Your task to perform on an android device: find snoozed emails in the gmail app Image 0: 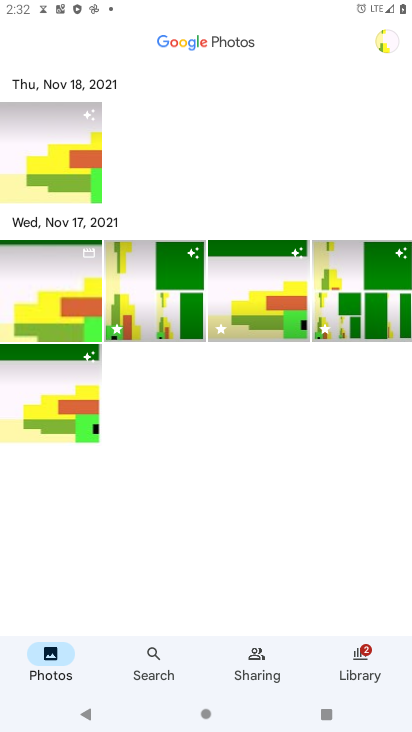
Step 0: press home button
Your task to perform on an android device: find snoozed emails in the gmail app Image 1: 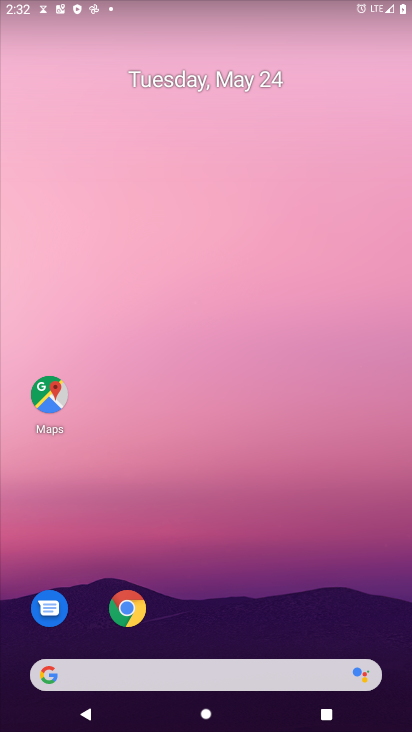
Step 1: drag from (252, 682) to (293, 120)
Your task to perform on an android device: find snoozed emails in the gmail app Image 2: 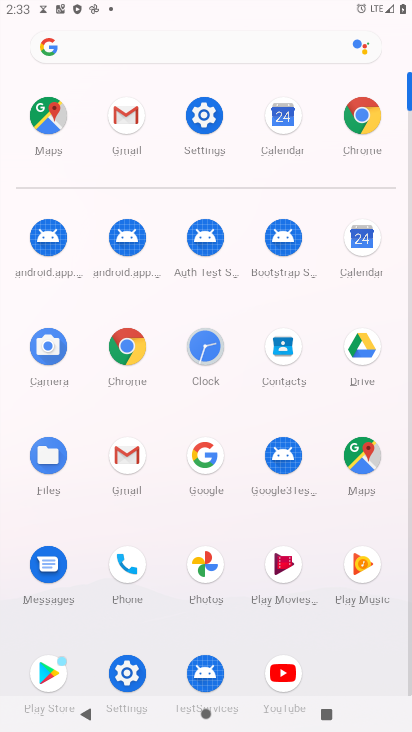
Step 2: click (128, 127)
Your task to perform on an android device: find snoozed emails in the gmail app Image 3: 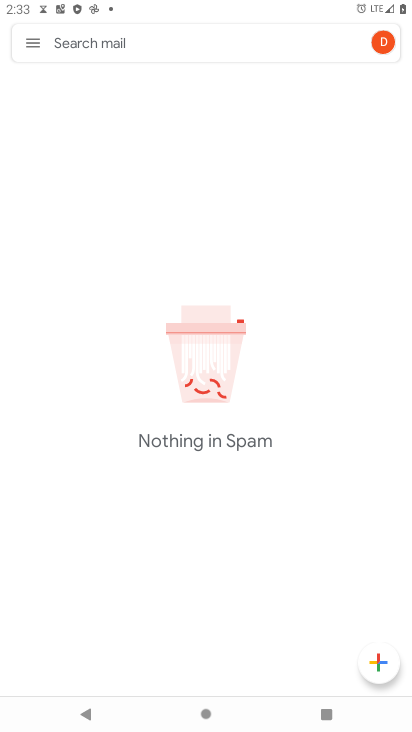
Step 3: click (37, 46)
Your task to perform on an android device: find snoozed emails in the gmail app Image 4: 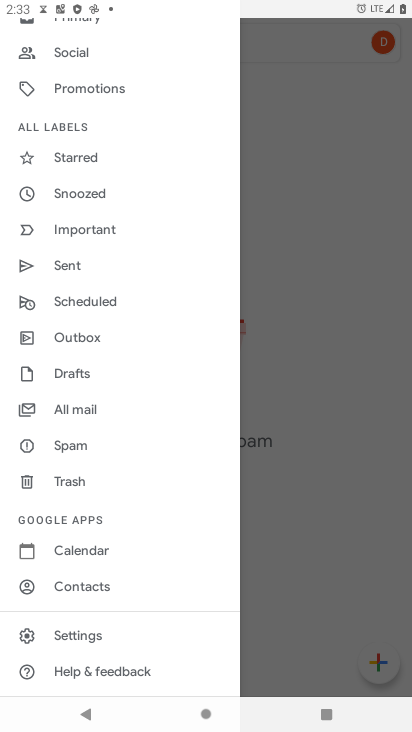
Step 4: click (67, 194)
Your task to perform on an android device: find snoozed emails in the gmail app Image 5: 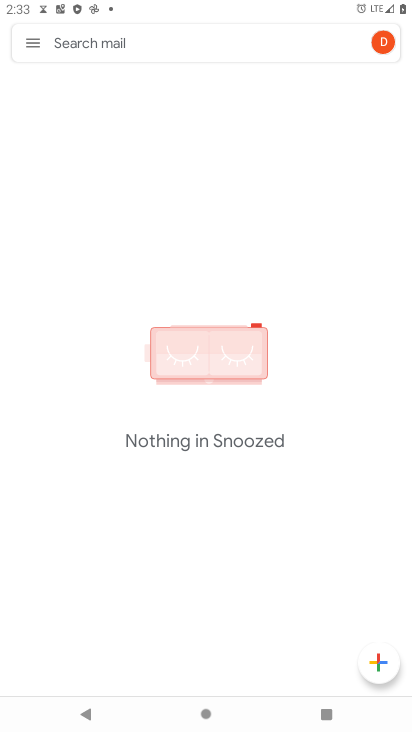
Step 5: task complete